Your task to perform on an android device: add a contact Image 0: 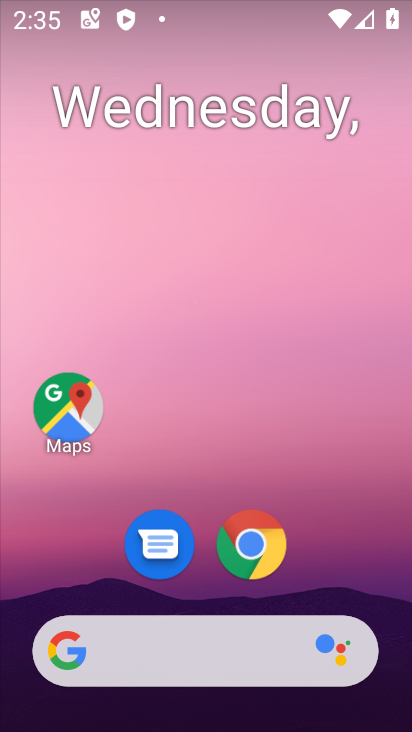
Step 0: drag from (383, 593) to (345, 148)
Your task to perform on an android device: add a contact Image 1: 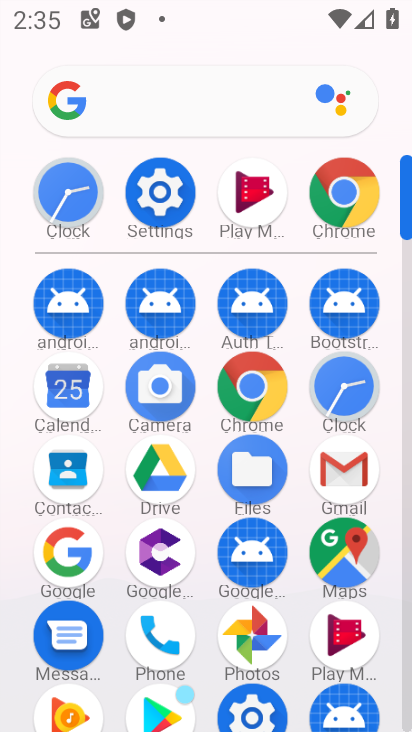
Step 1: click (63, 472)
Your task to perform on an android device: add a contact Image 2: 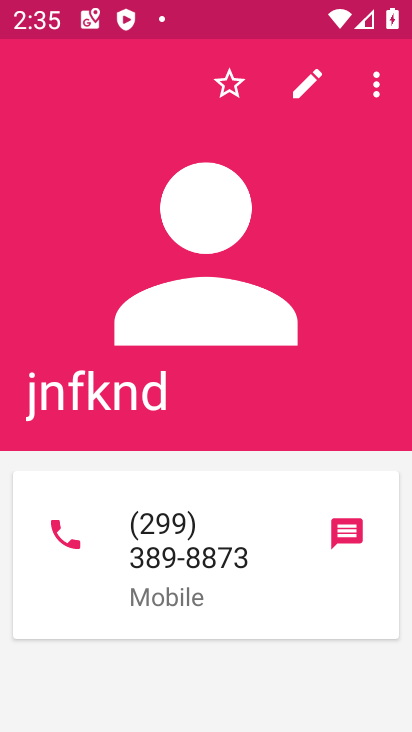
Step 2: click (295, 102)
Your task to perform on an android device: add a contact Image 3: 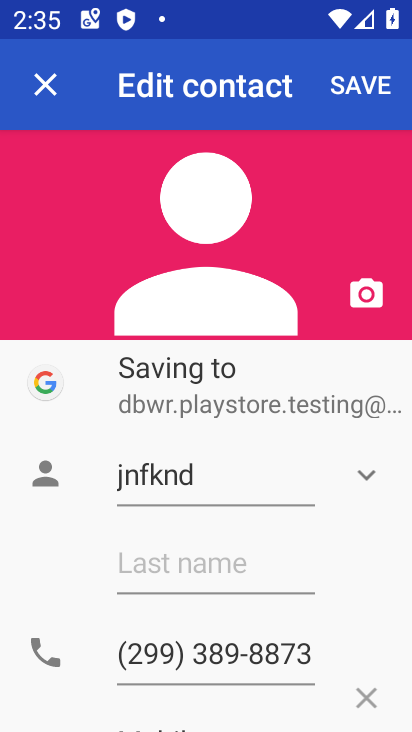
Step 3: click (225, 484)
Your task to perform on an android device: add a contact Image 4: 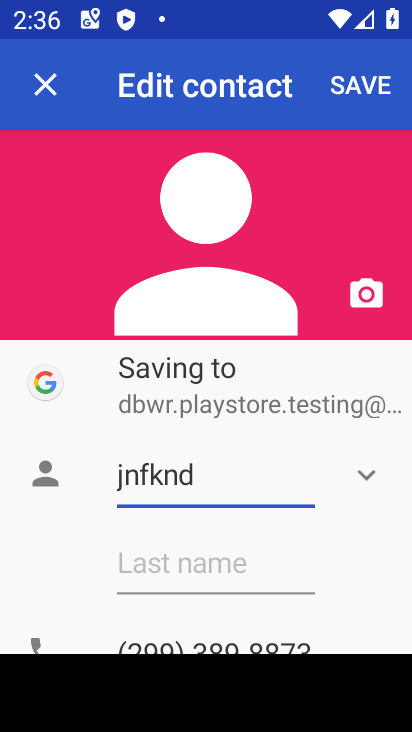
Step 4: type "om"
Your task to perform on an android device: add a contact Image 5: 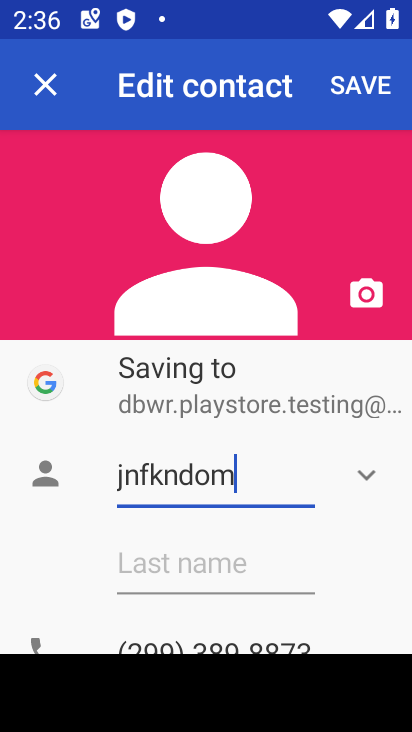
Step 5: click (357, 81)
Your task to perform on an android device: add a contact Image 6: 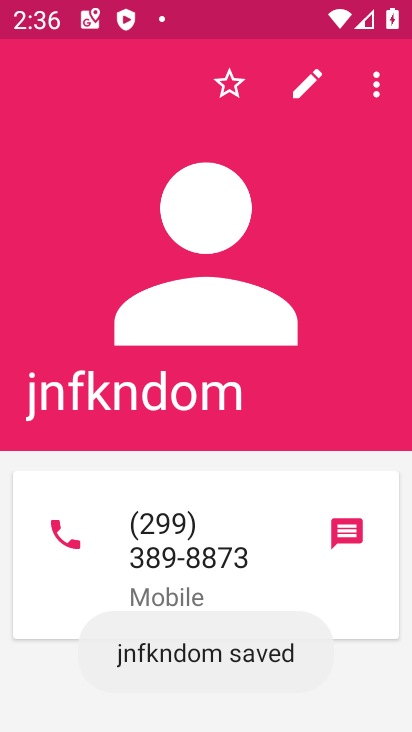
Step 6: task complete